Your task to perform on an android device: toggle improve location accuracy Image 0: 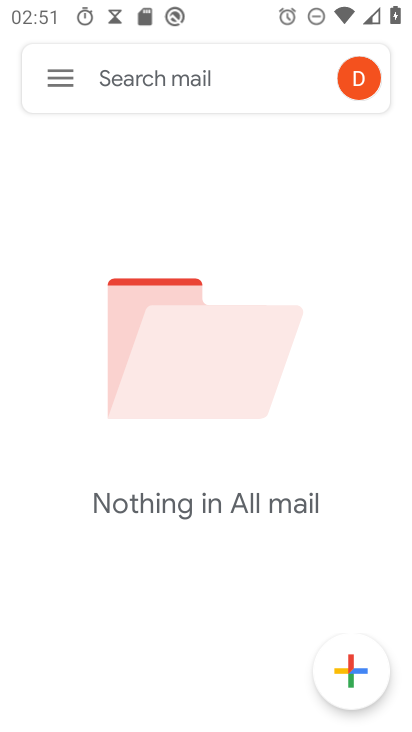
Step 0: press home button
Your task to perform on an android device: toggle improve location accuracy Image 1: 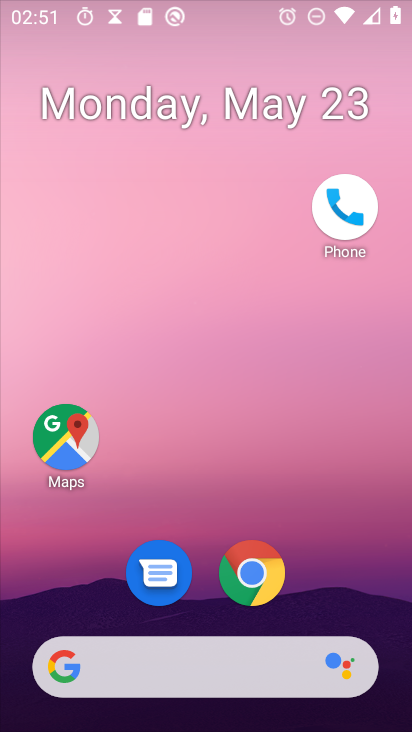
Step 1: drag from (176, 670) to (333, 195)
Your task to perform on an android device: toggle improve location accuracy Image 2: 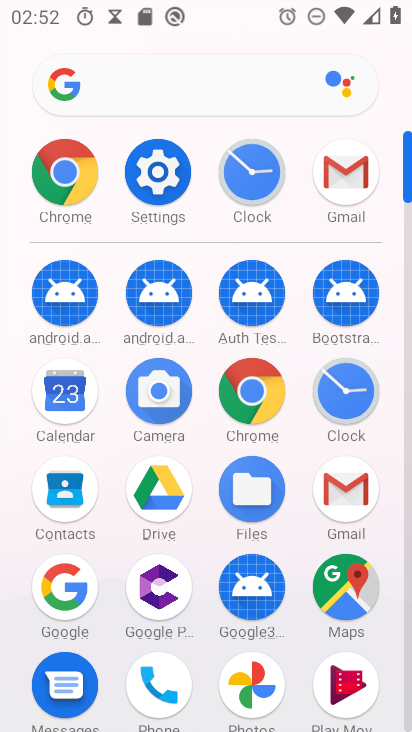
Step 2: click (156, 188)
Your task to perform on an android device: toggle improve location accuracy Image 3: 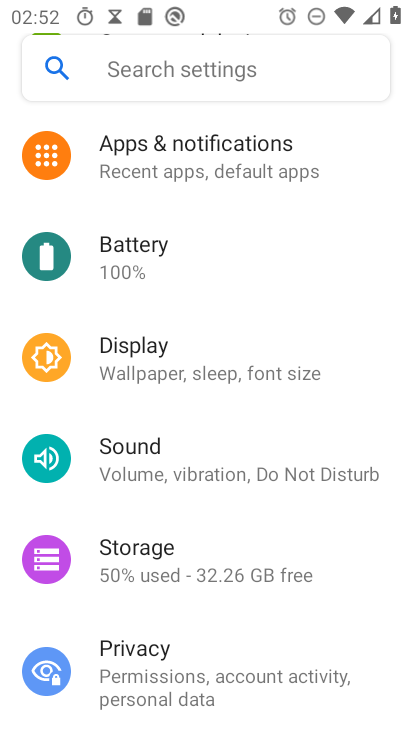
Step 3: drag from (229, 620) to (370, 156)
Your task to perform on an android device: toggle improve location accuracy Image 4: 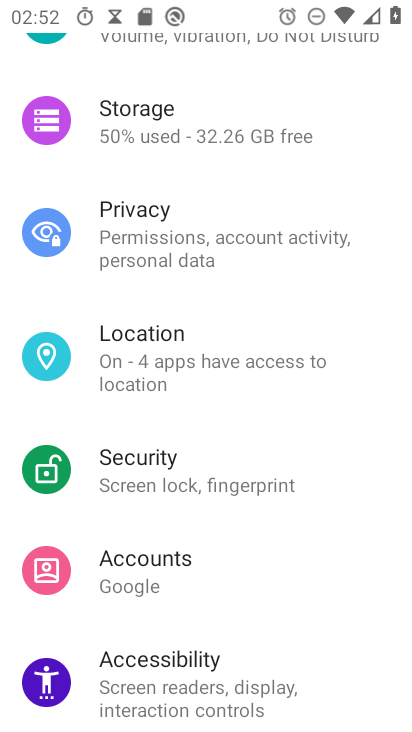
Step 4: click (219, 352)
Your task to perform on an android device: toggle improve location accuracy Image 5: 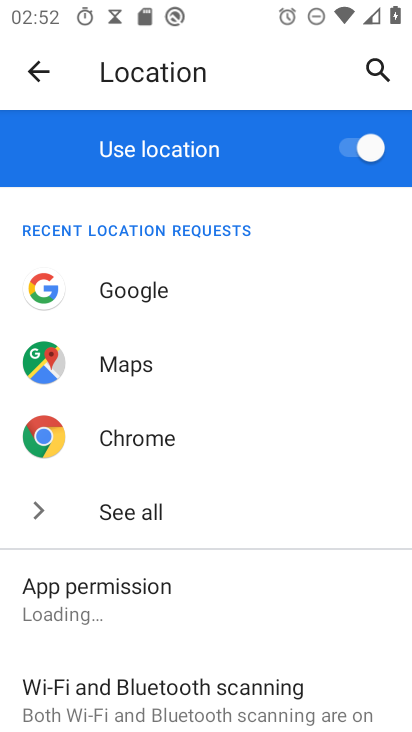
Step 5: drag from (189, 604) to (360, 119)
Your task to perform on an android device: toggle improve location accuracy Image 6: 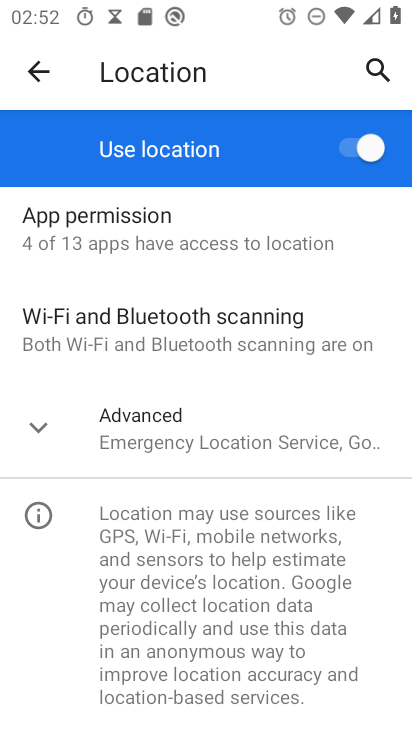
Step 6: click (168, 440)
Your task to perform on an android device: toggle improve location accuracy Image 7: 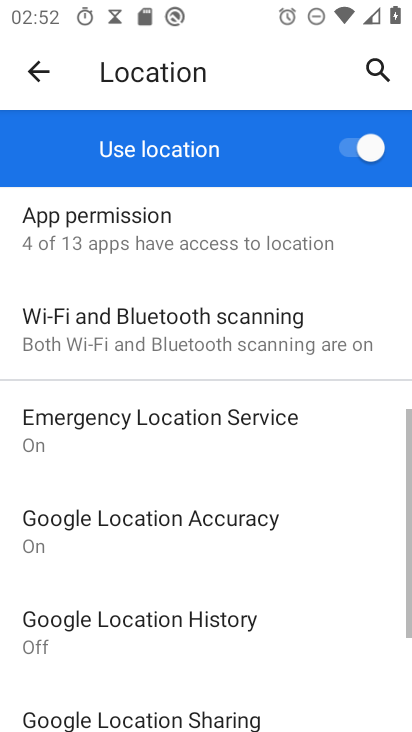
Step 7: drag from (185, 563) to (280, 296)
Your task to perform on an android device: toggle improve location accuracy Image 8: 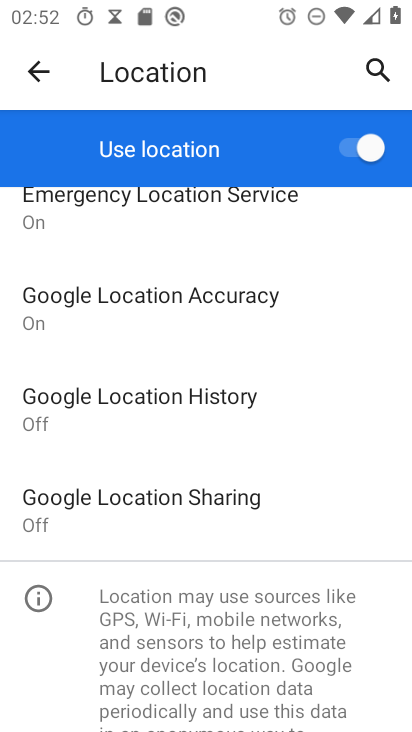
Step 8: click (177, 289)
Your task to perform on an android device: toggle improve location accuracy Image 9: 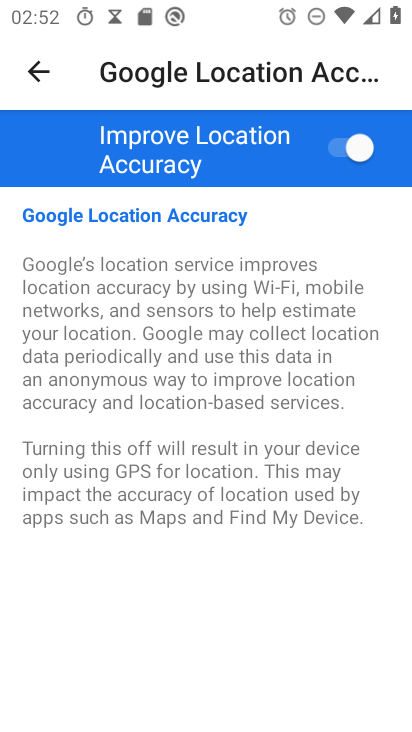
Step 9: click (338, 144)
Your task to perform on an android device: toggle improve location accuracy Image 10: 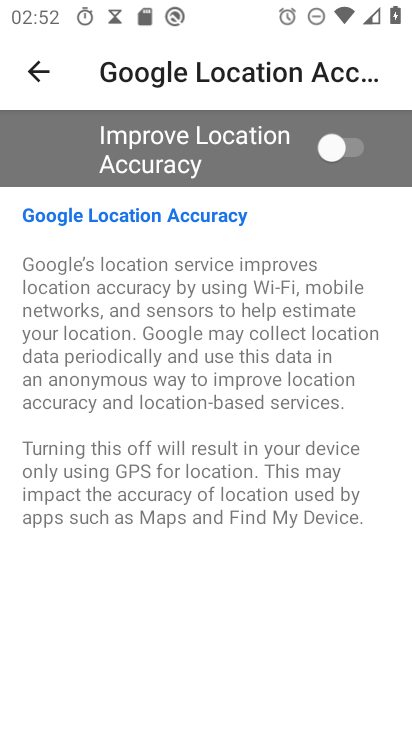
Step 10: task complete